Your task to perform on an android device: Find coffee shops on Maps Image 0: 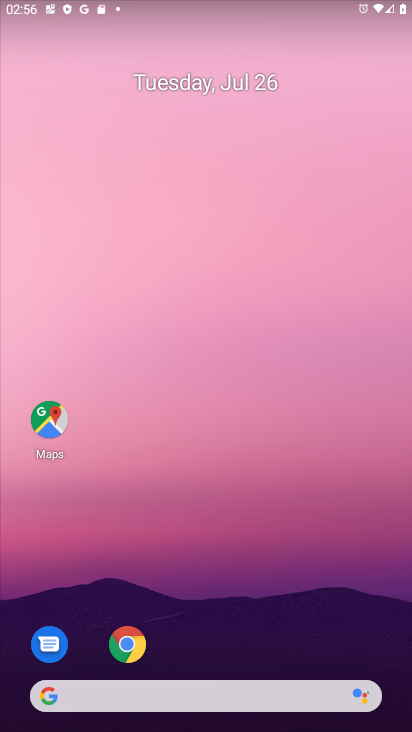
Step 0: drag from (195, 665) to (177, 108)
Your task to perform on an android device: Find coffee shops on Maps Image 1: 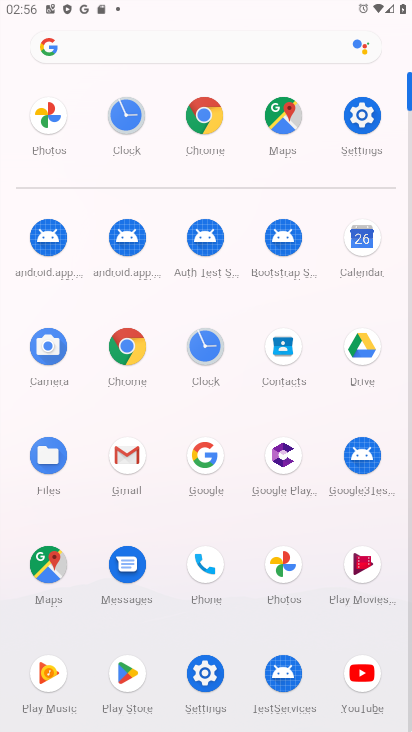
Step 1: click (34, 572)
Your task to perform on an android device: Find coffee shops on Maps Image 2: 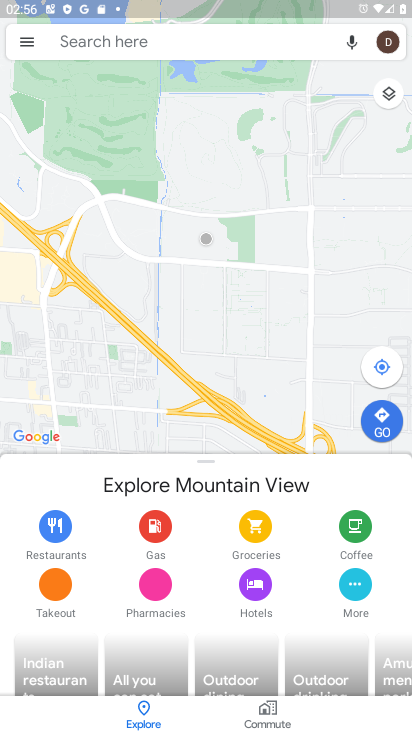
Step 2: click (101, 54)
Your task to perform on an android device: Find coffee shops on Maps Image 3: 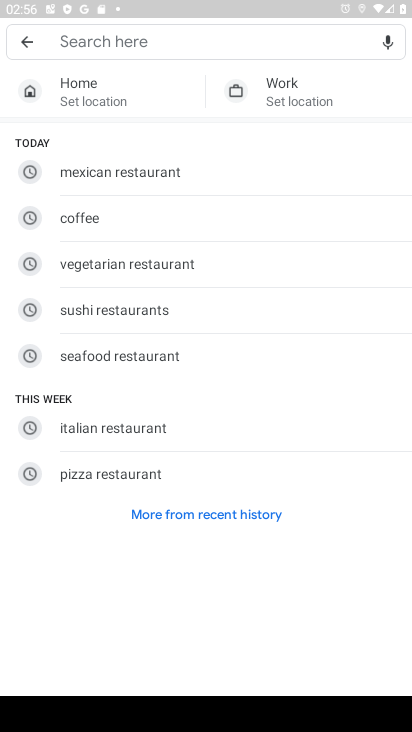
Step 3: click (105, 213)
Your task to perform on an android device: Find coffee shops on Maps Image 4: 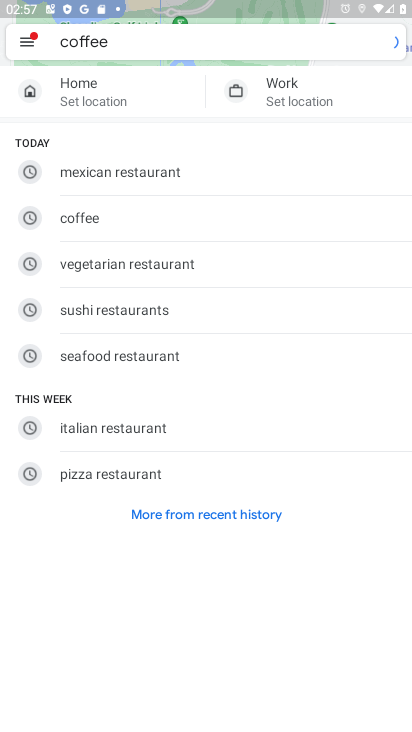
Step 4: task complete